Your task to perform on an android device: Toggle the flashlight Image 0: 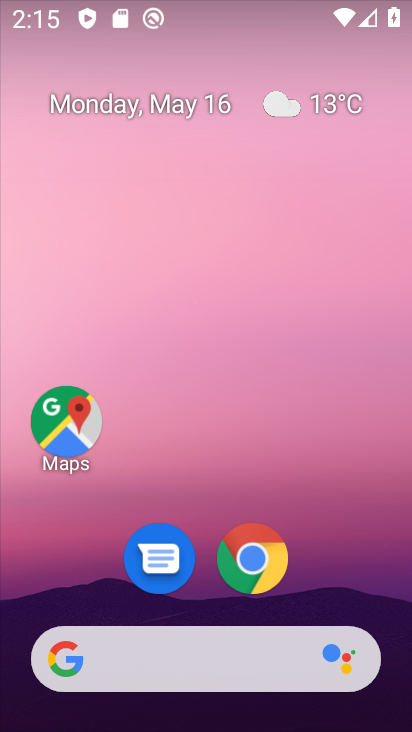
Step 0: drag from (215, 600) to (205, 18)
Your task to perform on an android device: Toggle the flashlight Image 1: 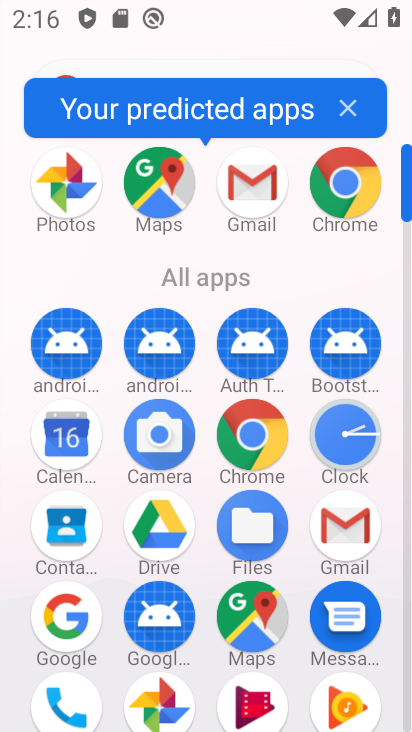
Step 1: drag from (205, 659) to (182, 84)
Your task to perform on an android device: Toggle the flashlight Image 2: 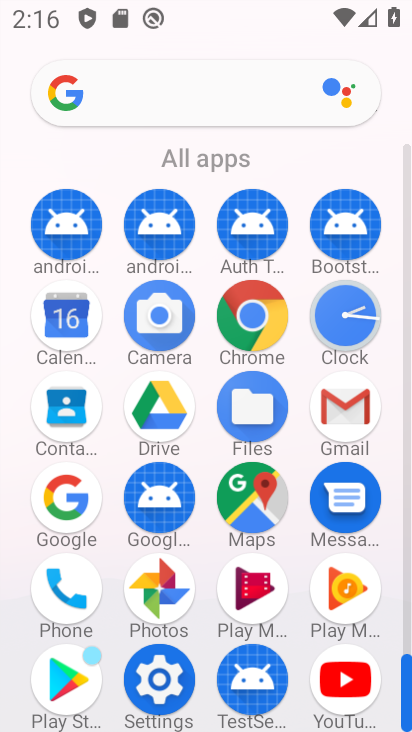
Step 2: click (155, 681)
Your task to perform on an android device: Toggle the flashlight Image 3: 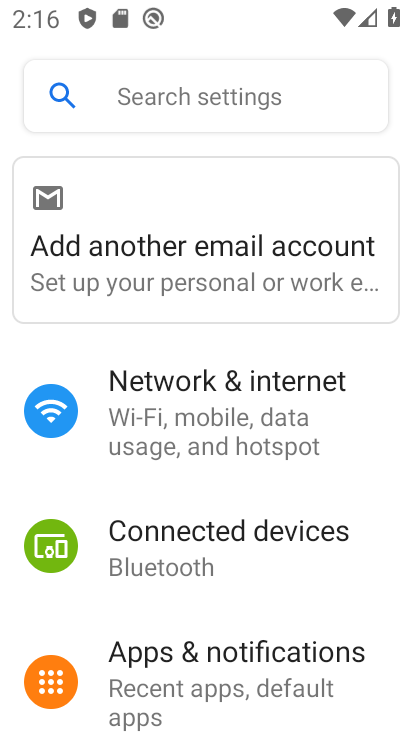
Step 3: task complete